Your task to perform on an android device: turn on the 24-hour format for clock Image 0: 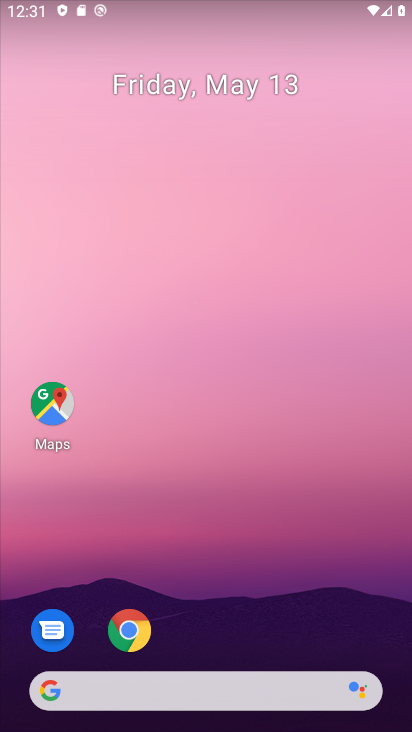
Step 0: drag from (274, 721) to (180, 341)
Your task to perform on an android device: turn on the 24-hour format for clock Image 1: 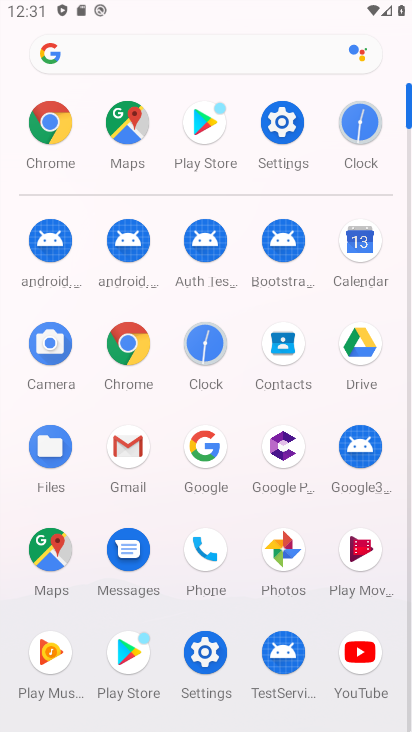
Step 1: click (205, 363)
Your task to perform on an android device: turn on the 24-hour format for clock Image 2: 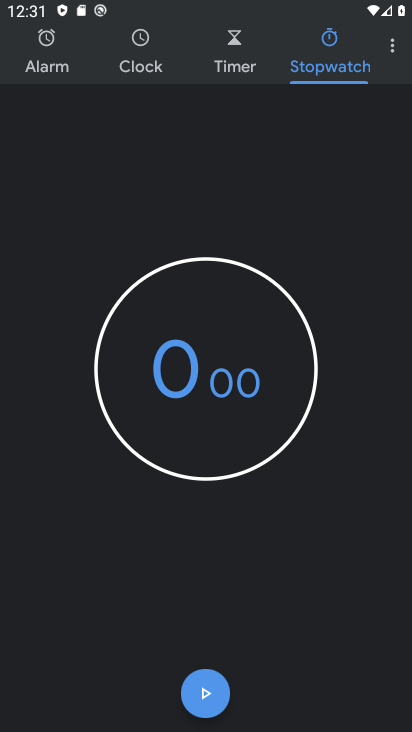
Step 2: click (395, 46)
Your task to perform on an android device: turn on the 24-hour format for clock Image 3: 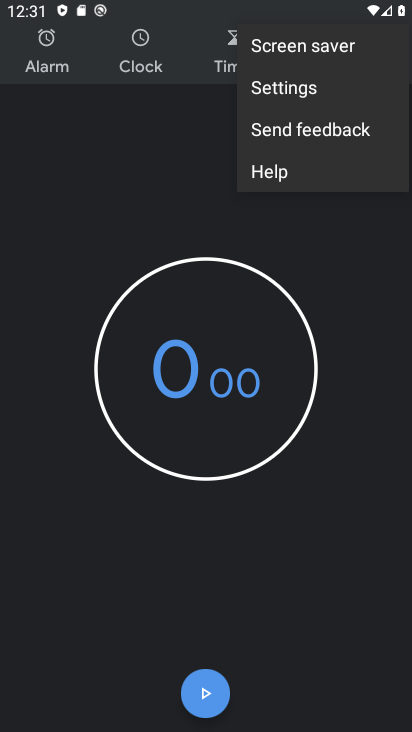
Step 3: click (309, 88)
Your task to perform on an android device: turn on the 24-hour format for clock Image 4: 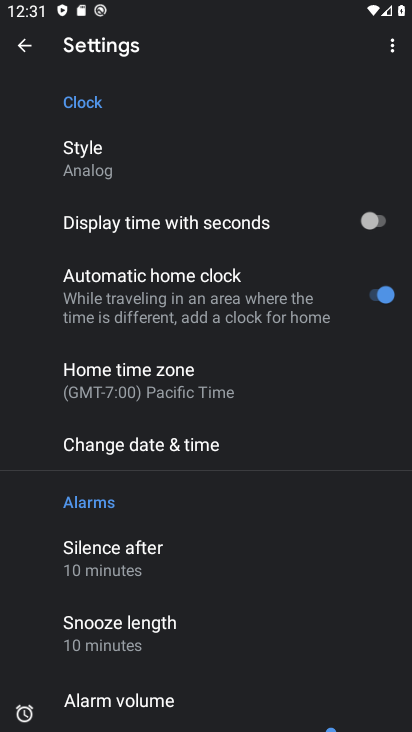
Step 4: click (216, 438)
Your task to perform on an android device: turn on the 24-hour format for clock Image 5: 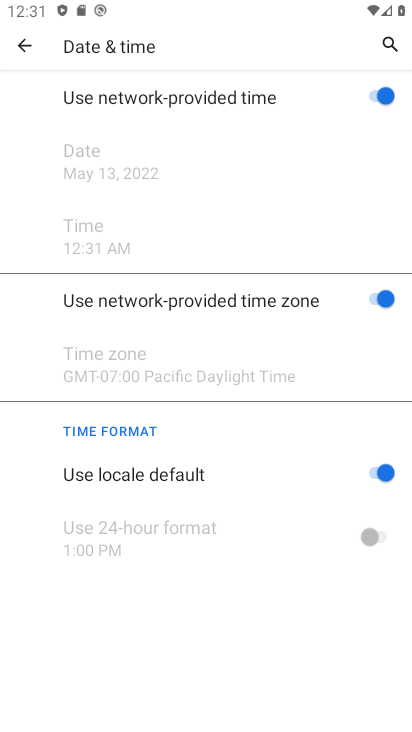
Step 5: click (384, 455)
Your task to perform on an android device: turn on the 24-hour format for clock Image 6: 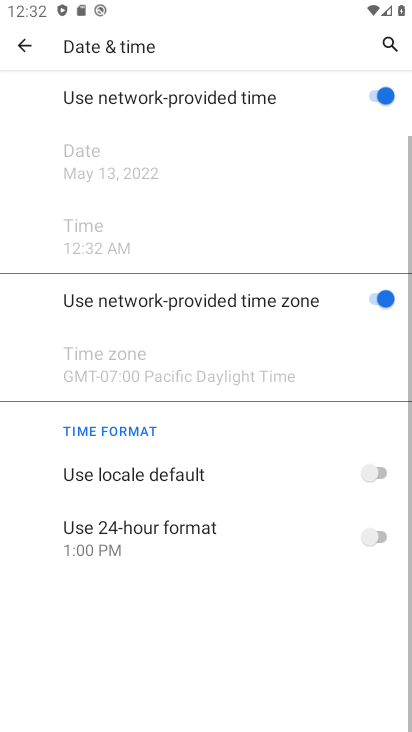
Step 6: click (358, 528)
Your task to perform on an android device: turn on the 24-hour format for clock Image 7: 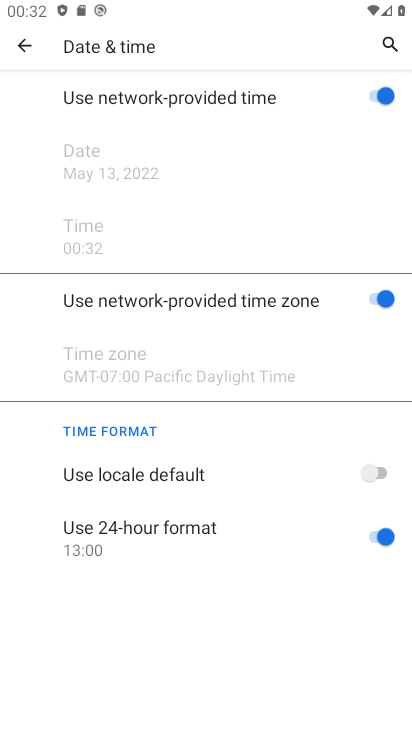
Step 7: task complete